Your task to perform on an android device: check storage Image 0: 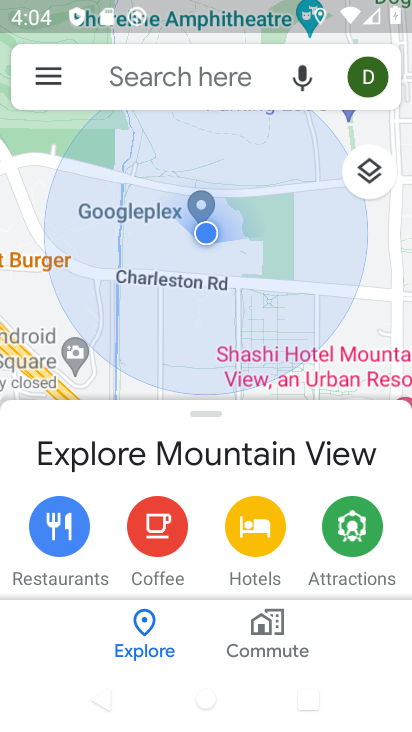
Step 0: press home button
Your task to perform on an android device: check storage Image 1: 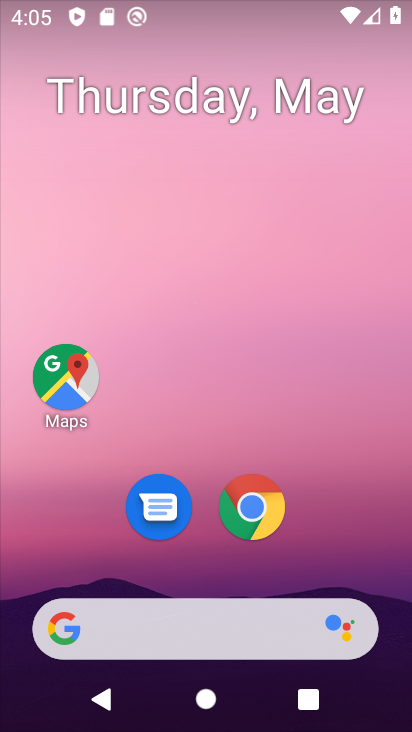
Step 1: drag from (300, 560) to (247, 10)
Your task to perform on an android device: check storage Image 2: 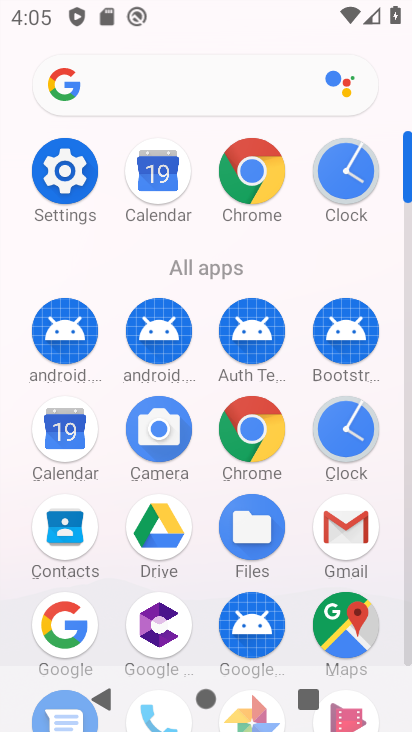
Step 2: click (68, 180)
Your task to perform on an android device: check storage Image 3: 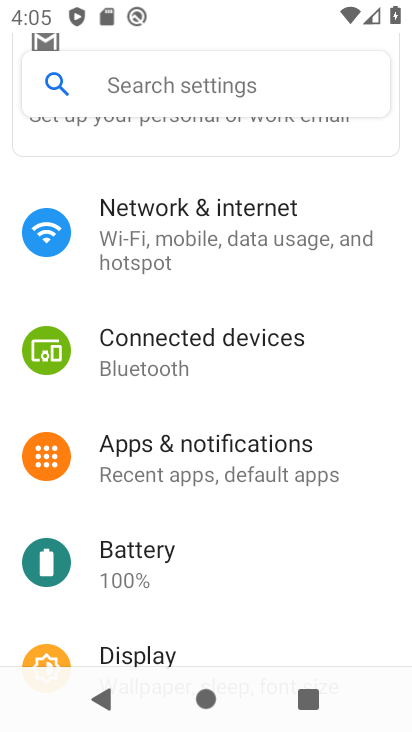
Step 3: drag from (200, 596) to (220, 322)
Your task to perform on an android device: check storage Image 4: 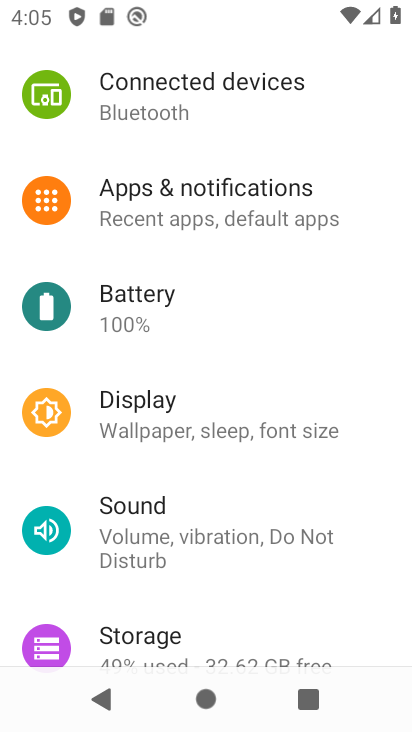
Step 4: drag from (195, 587) to (205, 336)
Your task to perform on an android device: check storage Image 5: 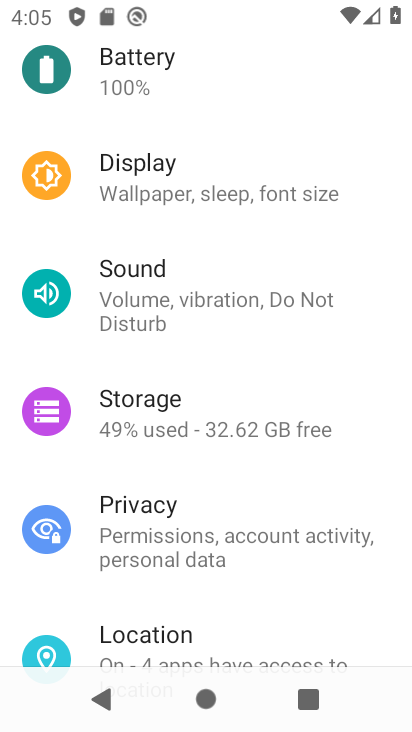
Step 5: click (179, 437)
Your task to perform on an android device: check storage Image 6: 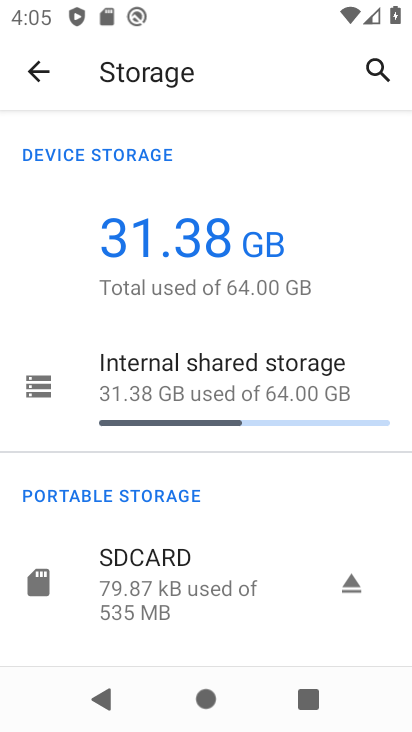
Step 6: task complete